Your task to perform on an android device: Go to eBay Image 0: 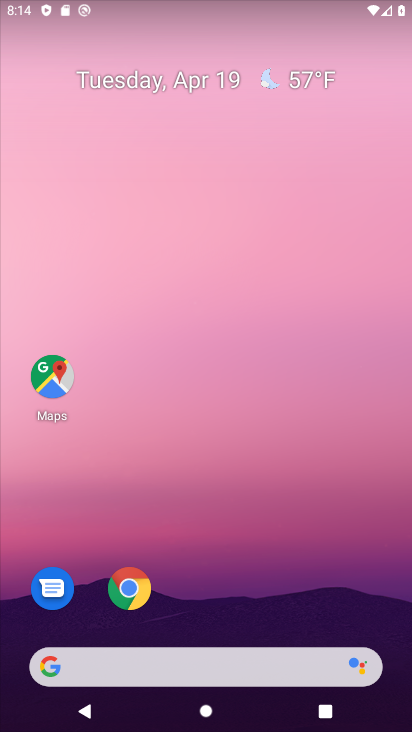
Step 0: click (126, 573)
Your task to perform on an android device: Go to eBay Image 1: 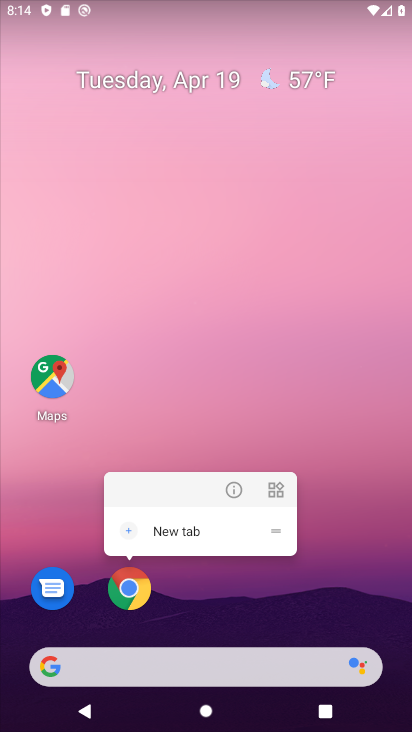
Step 1: click (126, 573)
Your task to perform on an android device: Go to eBay Image 2: 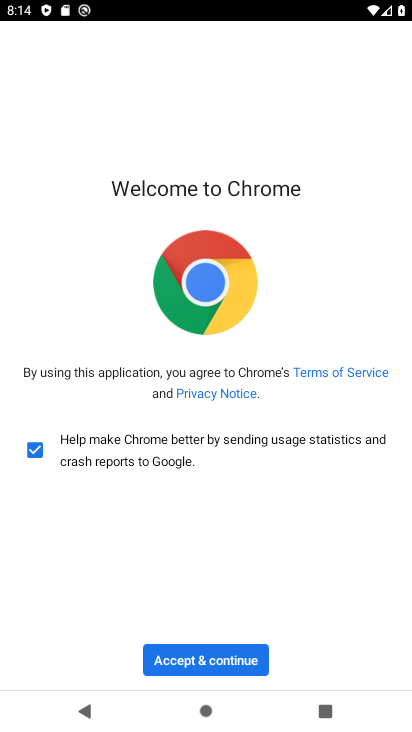
Step 2: click (256, 653)
Your task to perform on an android device: Go to eBay Image 3: 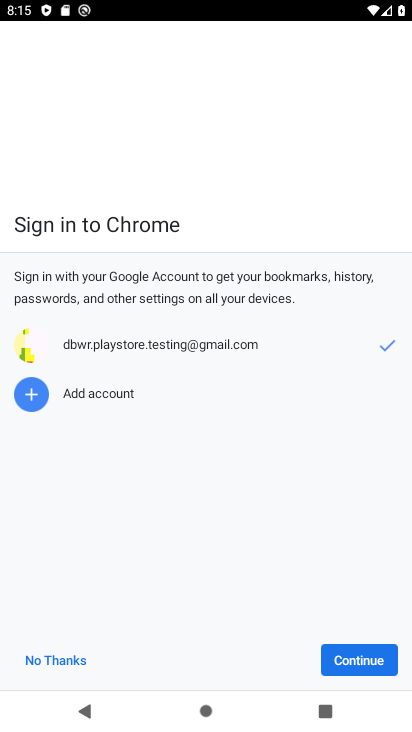
Step 3: click (340, 667)
Your task to perform on an android device: Go to eBay Image 4: 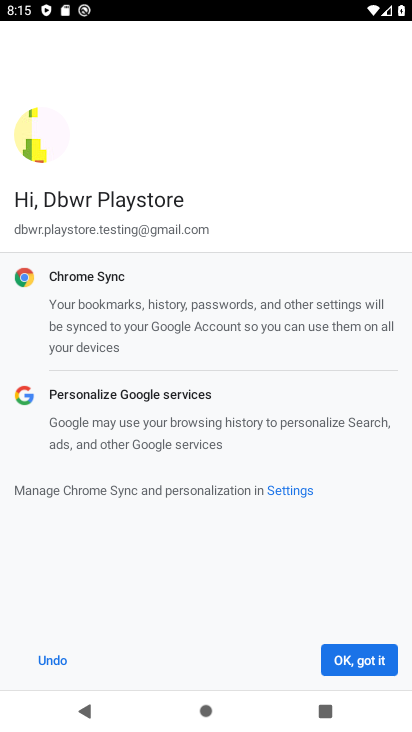
Step 4: click (340, 667)
Your task to perform on an android device: Go to eBay Image 5: 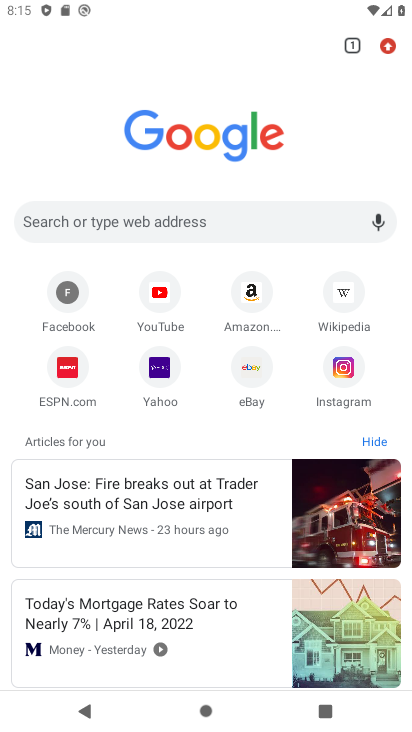
Step 5: click (243, 363)
Your task to perform on an android device: Go to eBay Image 6: 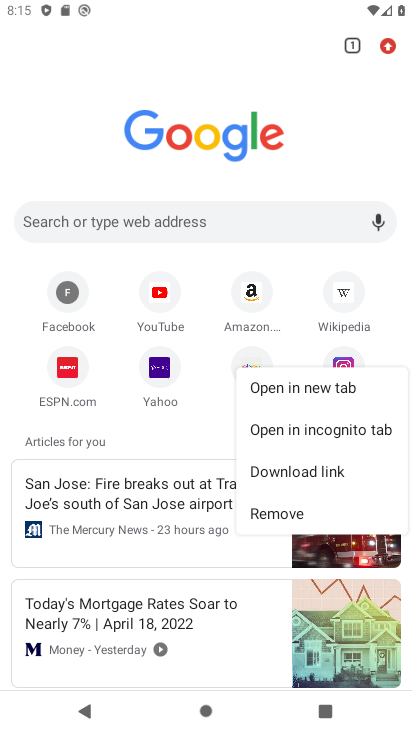
Step 6: click (244, 358)
Your task to perform on an android device: Go to eBay Image 7: 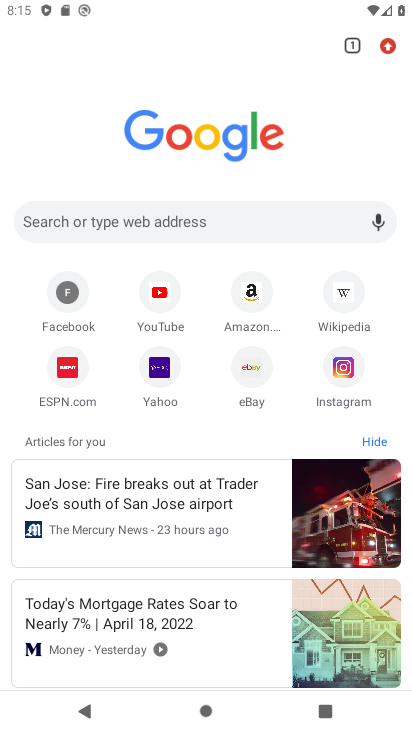
Step 7: click (244, 358)
Your task to perform on an android device: Go to eBay Image 8: 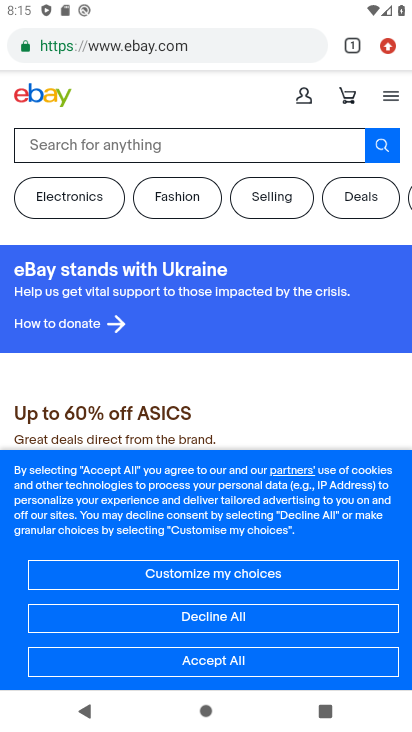
Step 8: task complete